Your task to perform on an android device: empty trash in google photos Image 0: 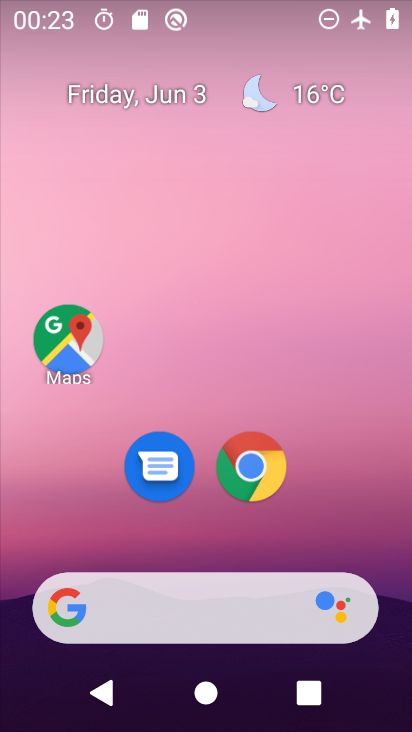
Step 0: drag from (200, 549) to (214, 239)
Your task to perform on an android device: empty trash in google photos Image 1: 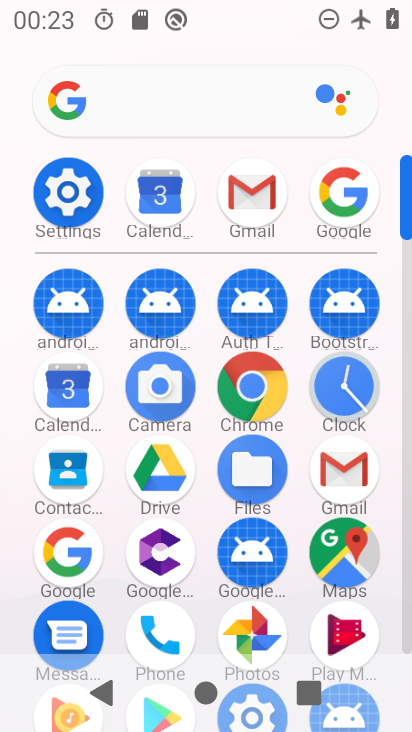
Step 1: click (254, 634)
Your task to perform on an android device: empty trash in google photos Image 2: 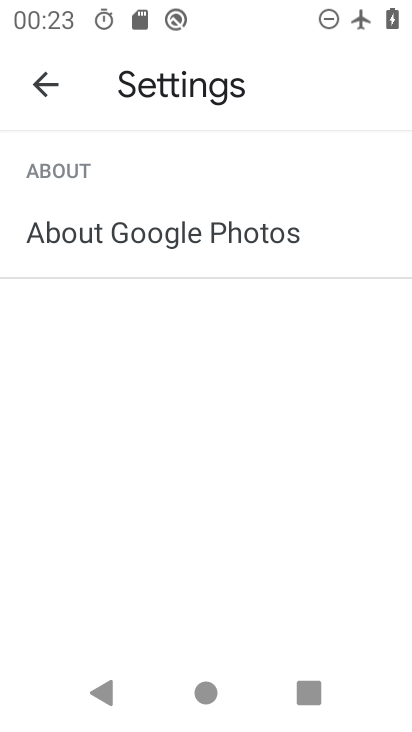
Step 2: click (48, 88)
Your task to perform on an android device: empty trash in google photos Image 3: 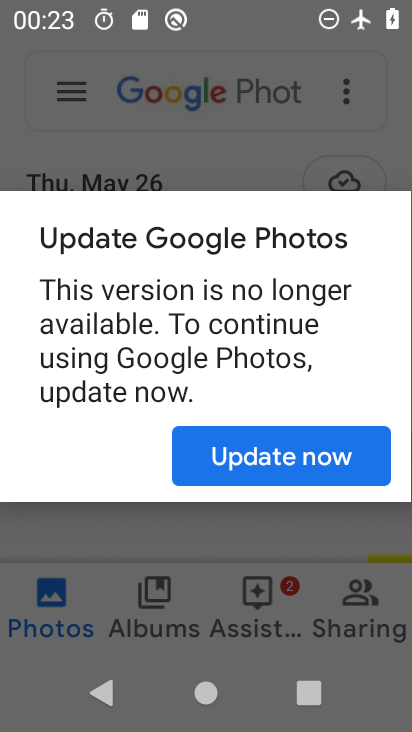
Step 3: click (250, 445)
Your task to perform on an android device: empty trash in google photos Image 4: 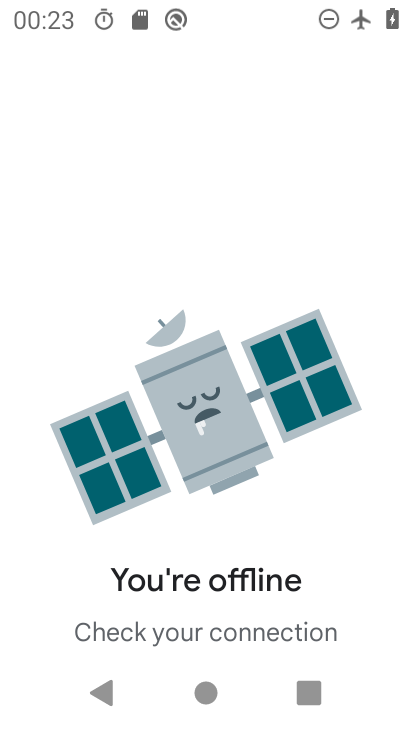
Step 4: press back button
Your task to perform on an android device: empty trash in google photos Image 5: 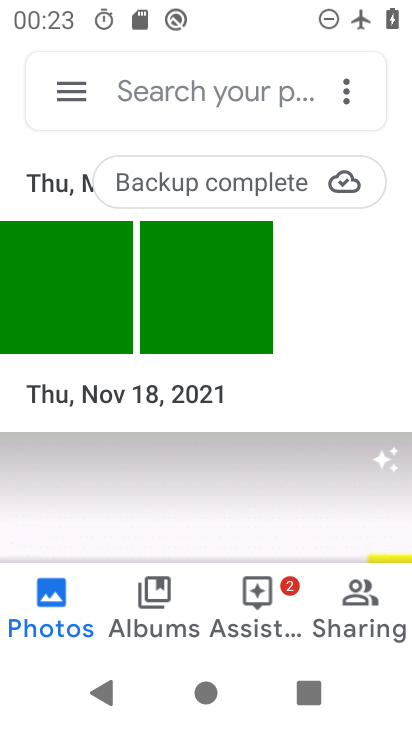
Step 5: click (66, 102)
Your task to perform on an android device: empty trash in google photos Image 6: 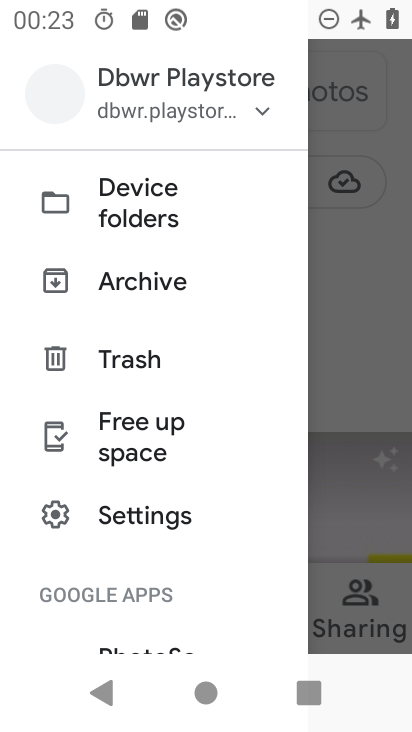
Step 6: click (159, 373)
Your task to perform on an android device: empty trash in google photos Image 7: 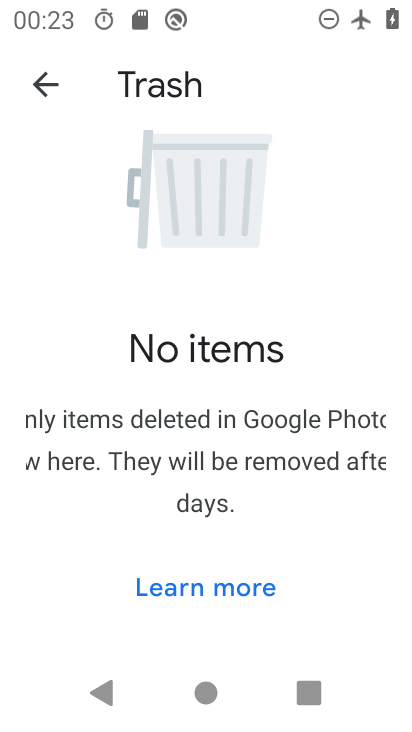
Step 7: task complete